Your task to perform on an android device: Open battery settings Image 0: 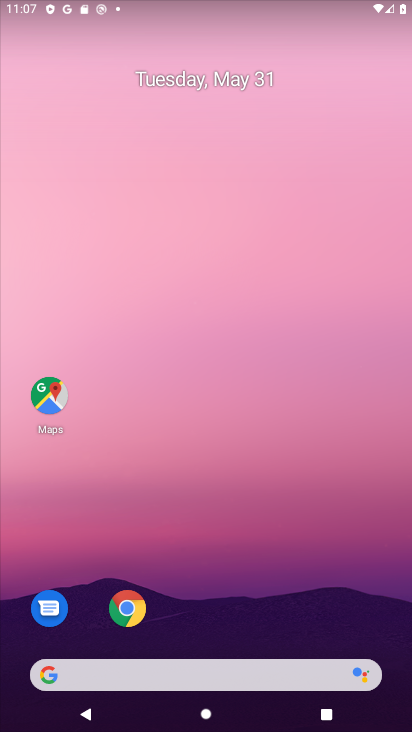
Step 0: drag from (377, 582) to (301, 36)
Your task to perform on an android device: Open battery settings Image 1: 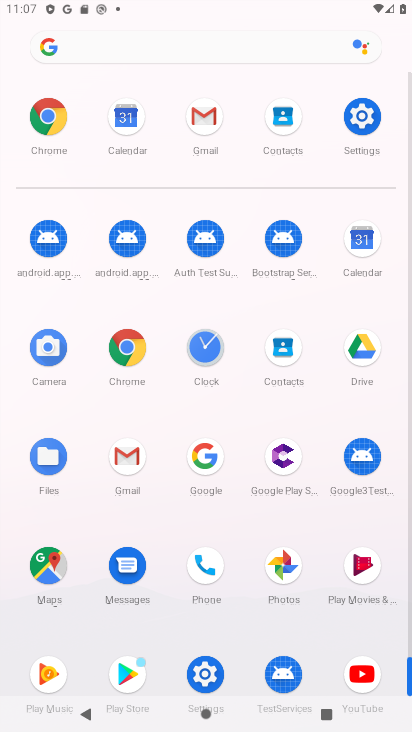
Step 1: click (370, 137)
Your task to perform on an android device: Open battery settings Image 2: 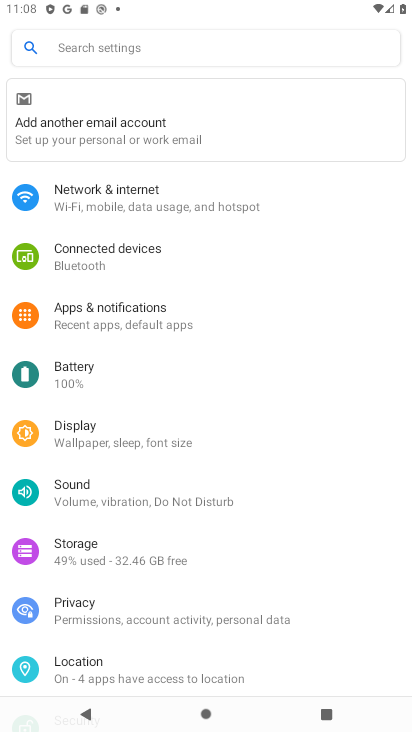
Step 2: click (45, 372)
Your task to perform on an android device: Open battery settings Image 3: 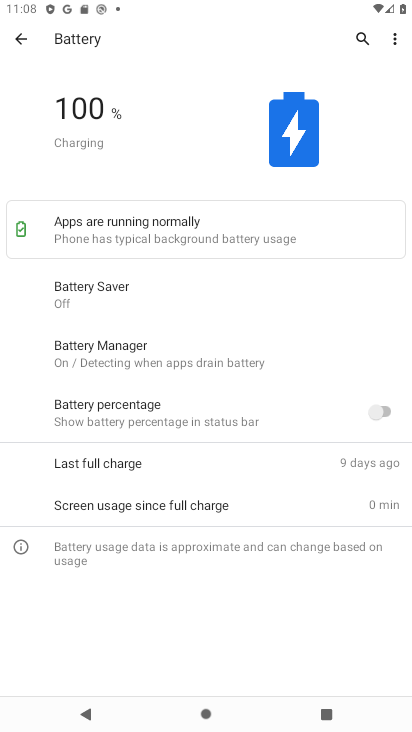
Step 3: task complete